Your task to perform on an android device: When is my next meeting? Image 0: 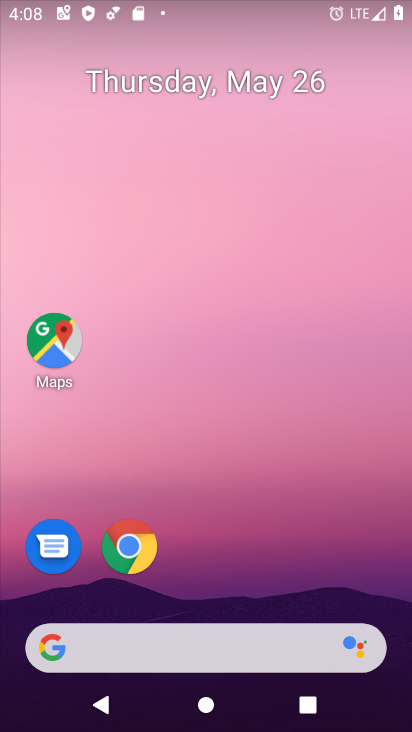
Step 0: drag from (248, 448) to (242, 106)
Your task to perform on an android device: When is my next meeting? Image 1: 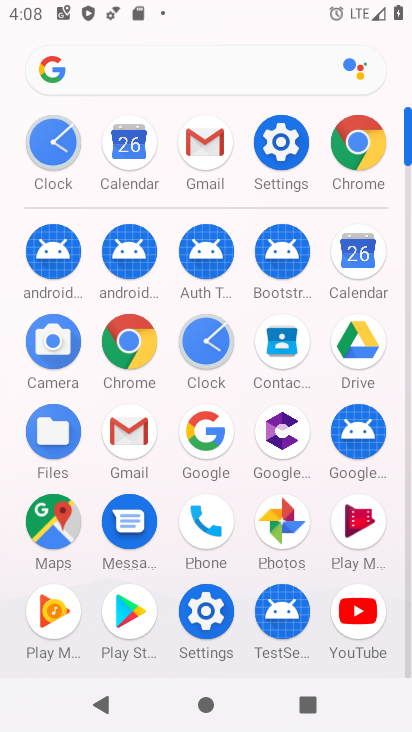
Step 1: click (152, 69)
Your task to perform on an android device: When is my next meeting? Image 2: 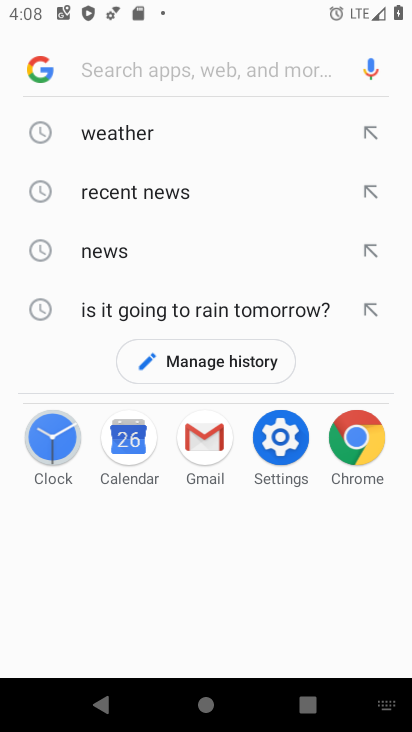
Step 2: click (119, 122)
Your task to perform on an android device: When is my next meeting? Image 3: 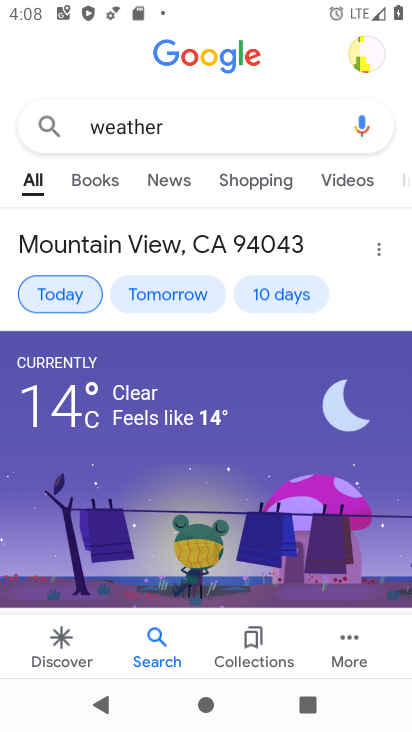
Step 3: drag from (223, 553) to (230, 495)
Your task to perform on an android device: When is my next meeting? Image 4: 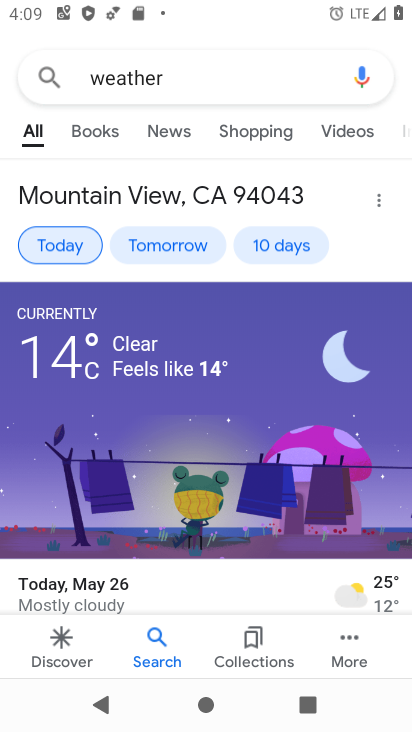
Step 4: press home button
Your task to perform on an android device: When is my next meeting? Image 5: 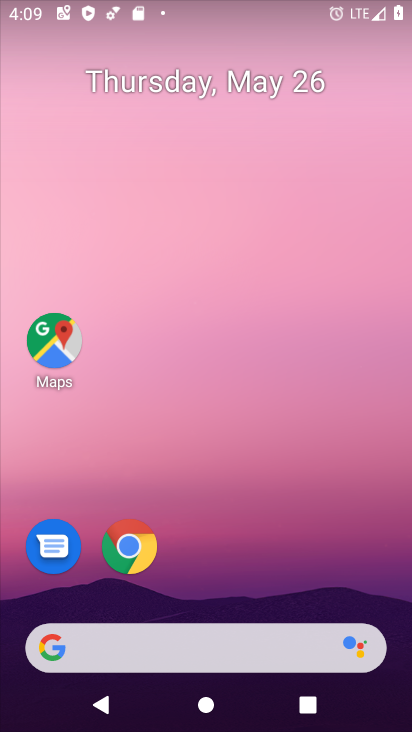
Step 5: drag from (239, 403) to (264, 15)
Your task to perform on an android device: When is my next meeting? Image 6: 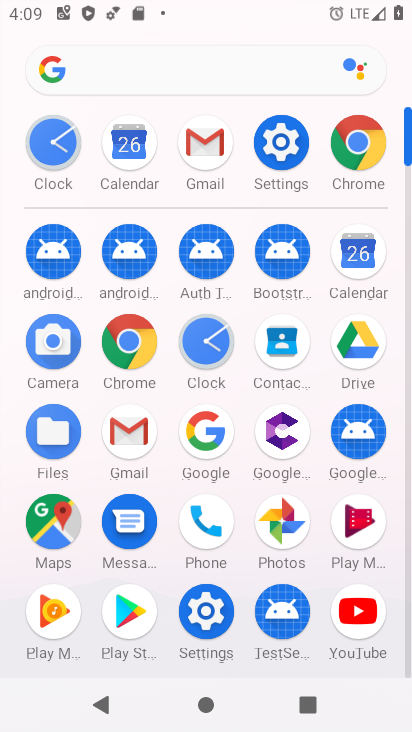
Step 6: click (125, 144)
Your task to perform on an android device: When is my next meeting? Image 7: 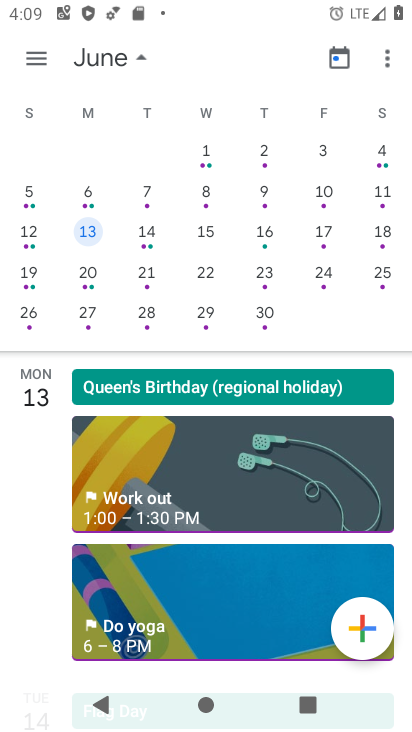
Step 7: drag from (36, 245) to (361, 214)
Your task to perform on an android device: When is my next meeting? Image 8: 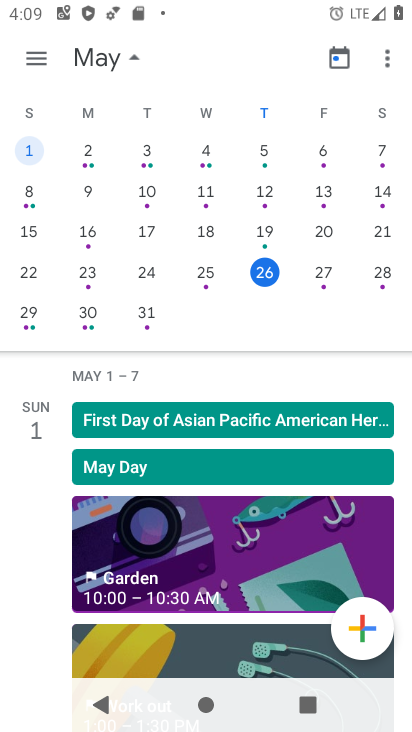
Step 8: drag from (221, 534) to (256, 397)
Your task to perform on an android device: When is my next meeting? Image 9: 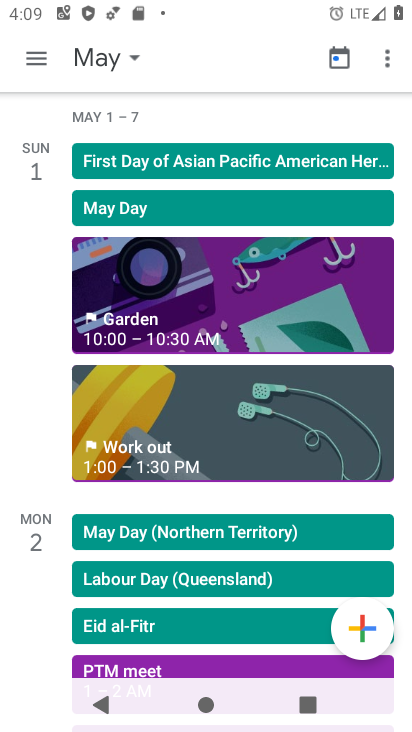
Step 9: click (261, 137)
Your task to perform on an android device: When is my next meeting? Image 10: 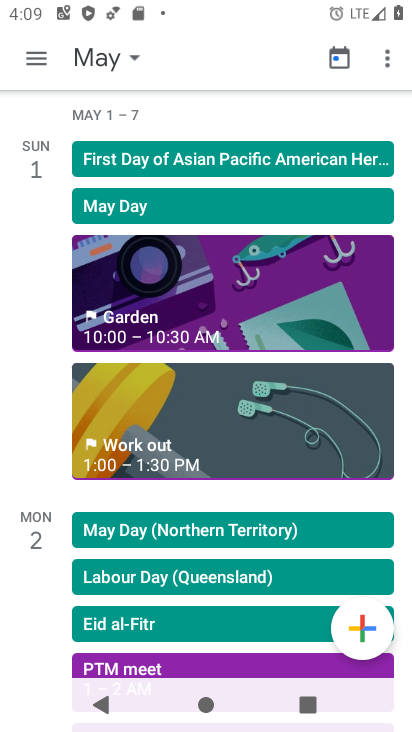
Step 10: drag from (261, 137) to (228, 510)
Your task to perform on an android device: When is my next meeting? Image 11: 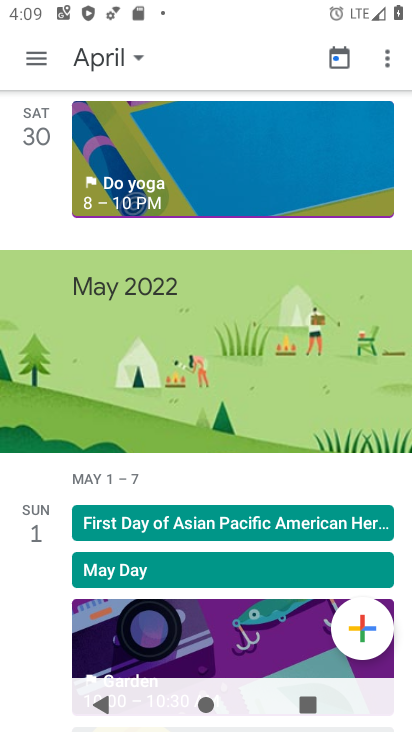
Step 11: drag from (273, 211) to (197, 725)
Your task to perform on an android device: When is my next meeting? Image 12: 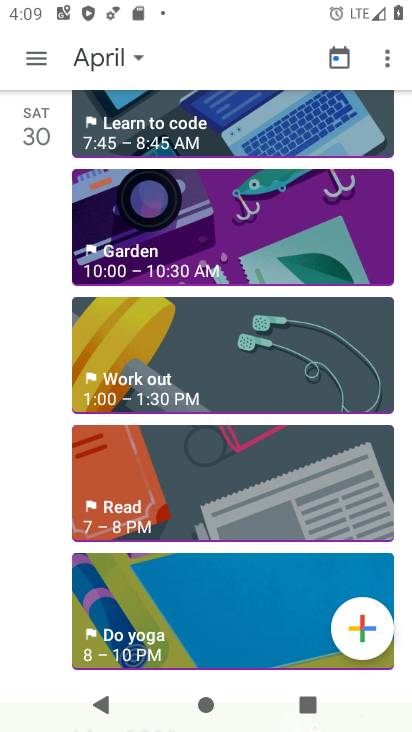
Step 12: click (108, 39)
Your task to perform on an android device: When is my next meeting? Image 13: 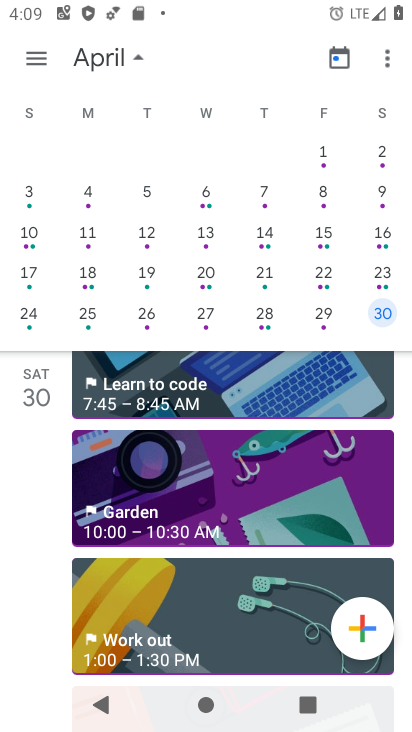
Step 13: click (144, 315)
Your task to perform on an android device: When is my next meeting? Image 14: 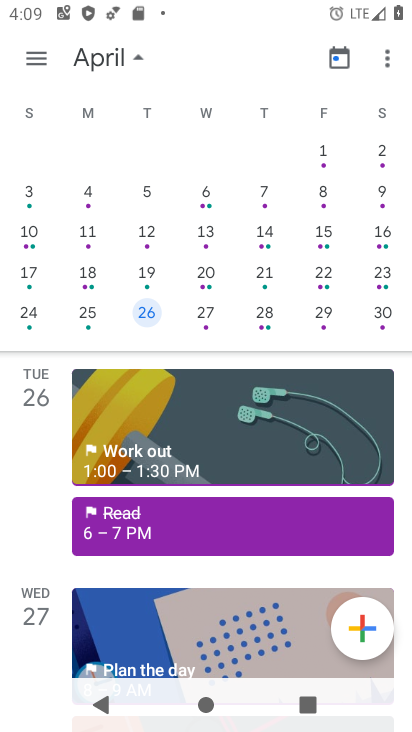
Step 14: task complete